Your task to perform on an android device: change the clock display to show seconds Image 0: 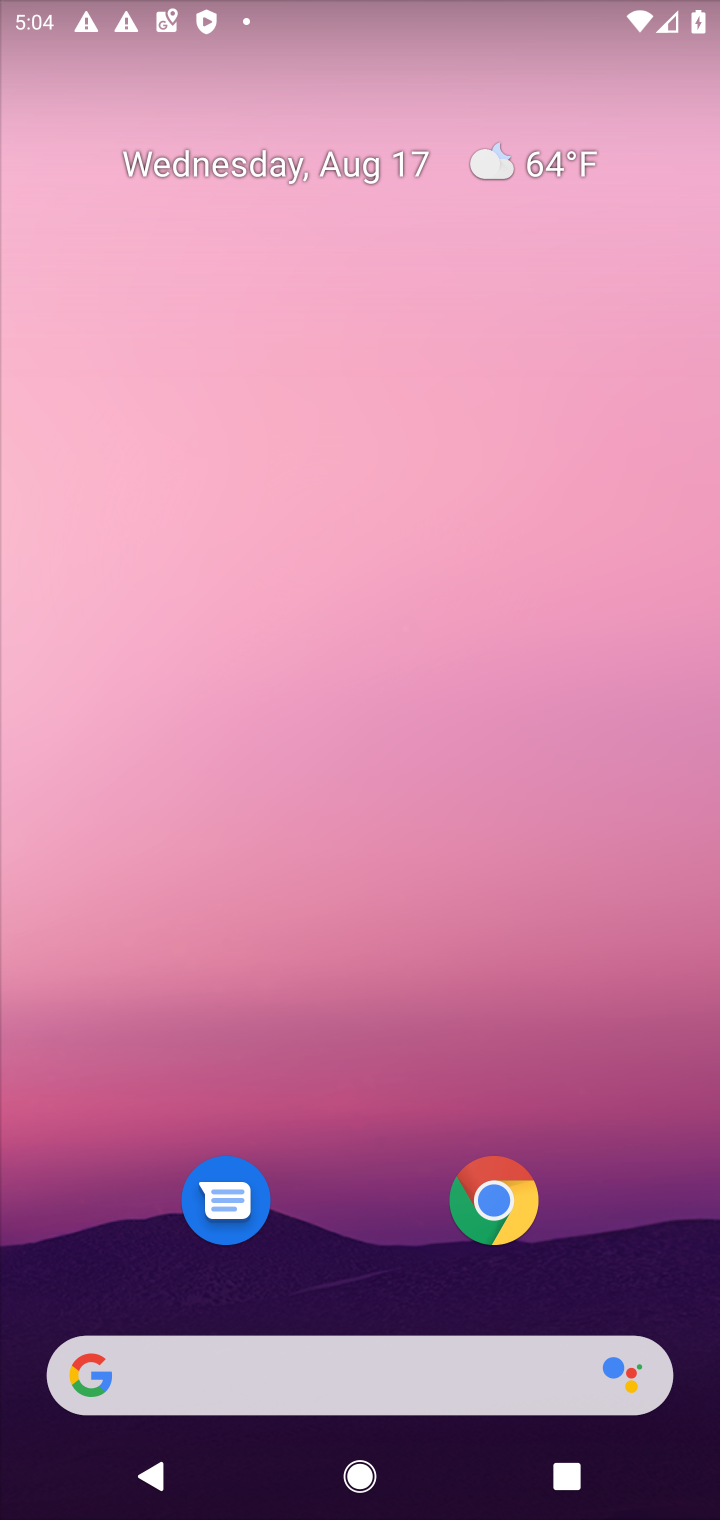
Step 0: drag from (362, 643) to (335, 118)
Your task to perform on an android device: change the clock display to show seconds Image 1: 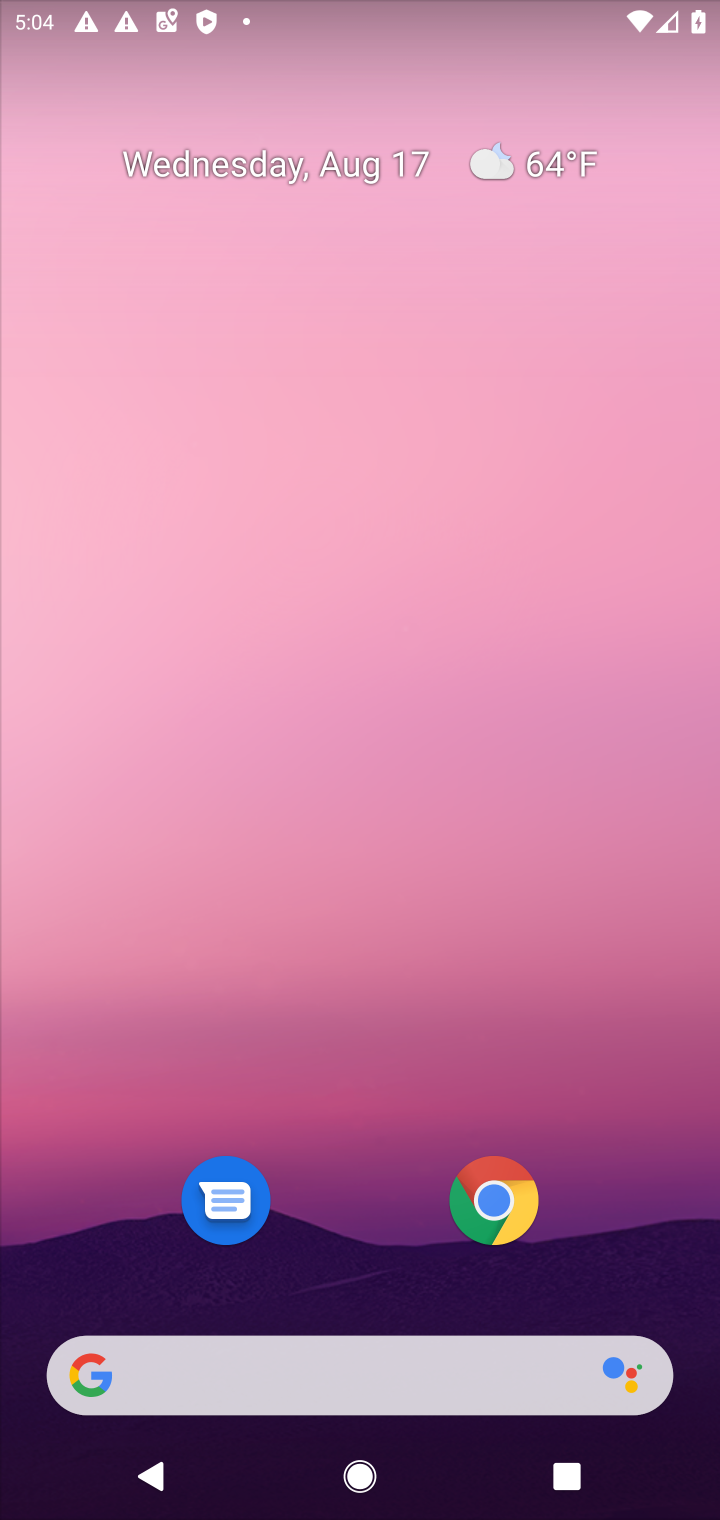
Step 1: drag from (350, 912) to (396, 12)
Your task to perform on an android device: change the clock display to show seconds Image 2: 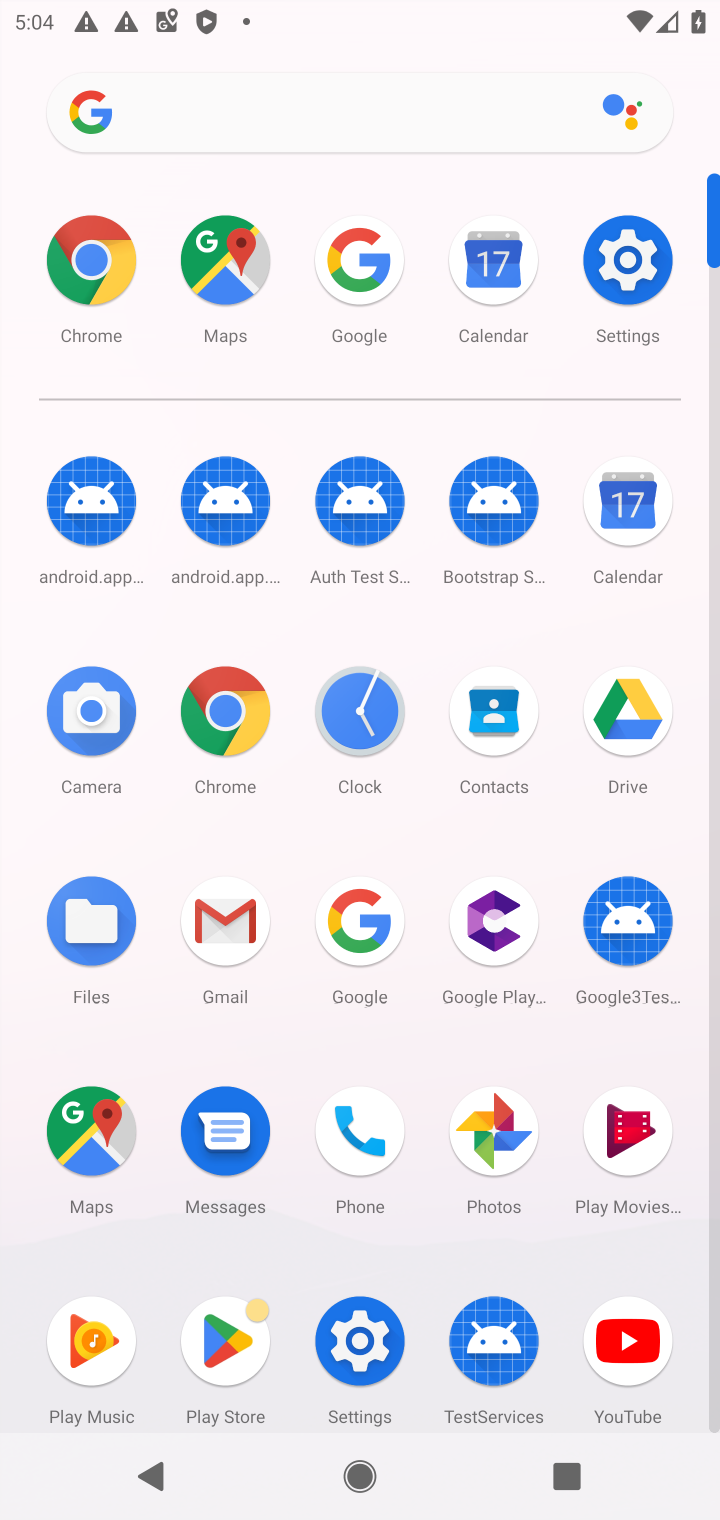
Step 2: click (366, 725)
Your task to perform on an android device: change the clock display to show seconds Image 3: 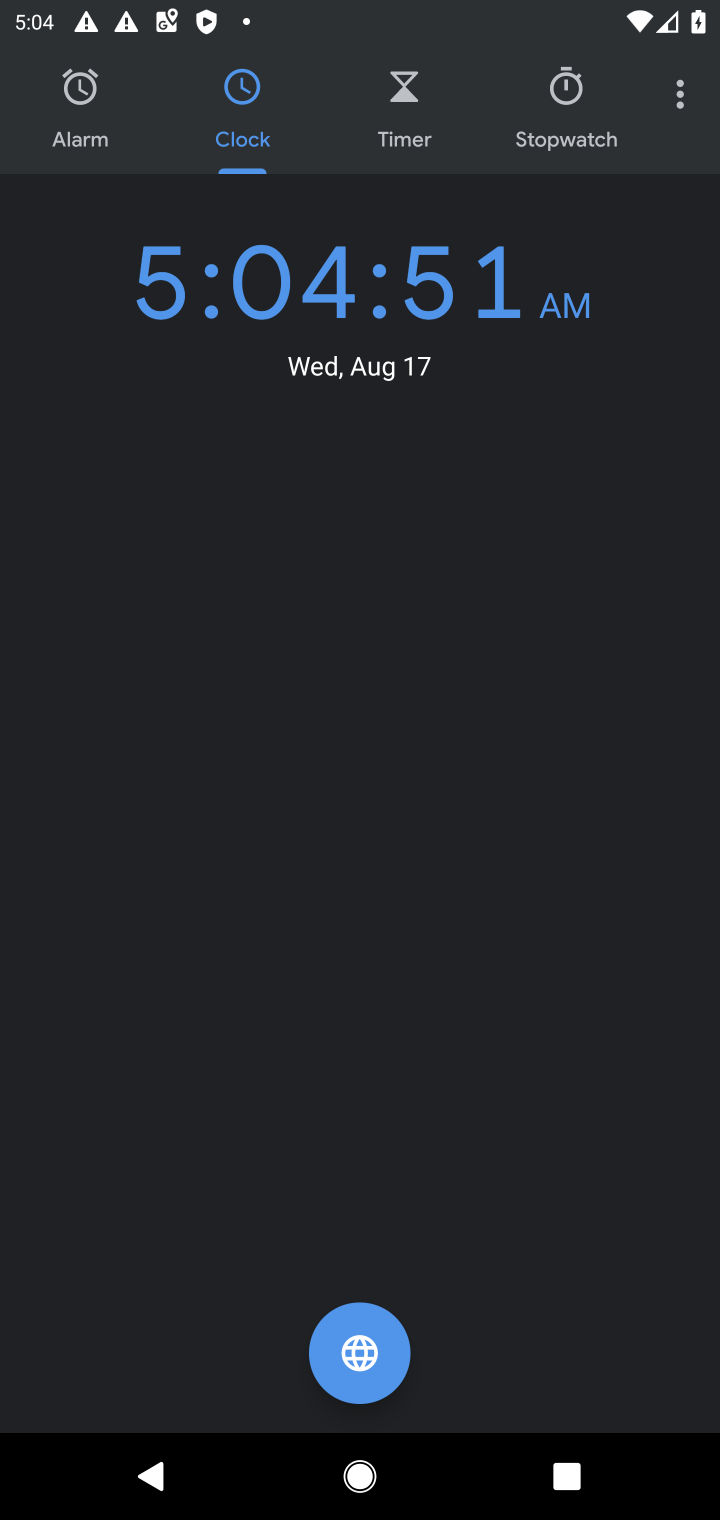
Step 3: click (685, 104)
Your task to perform on an android device: change the clock display to show seconds Image 4: 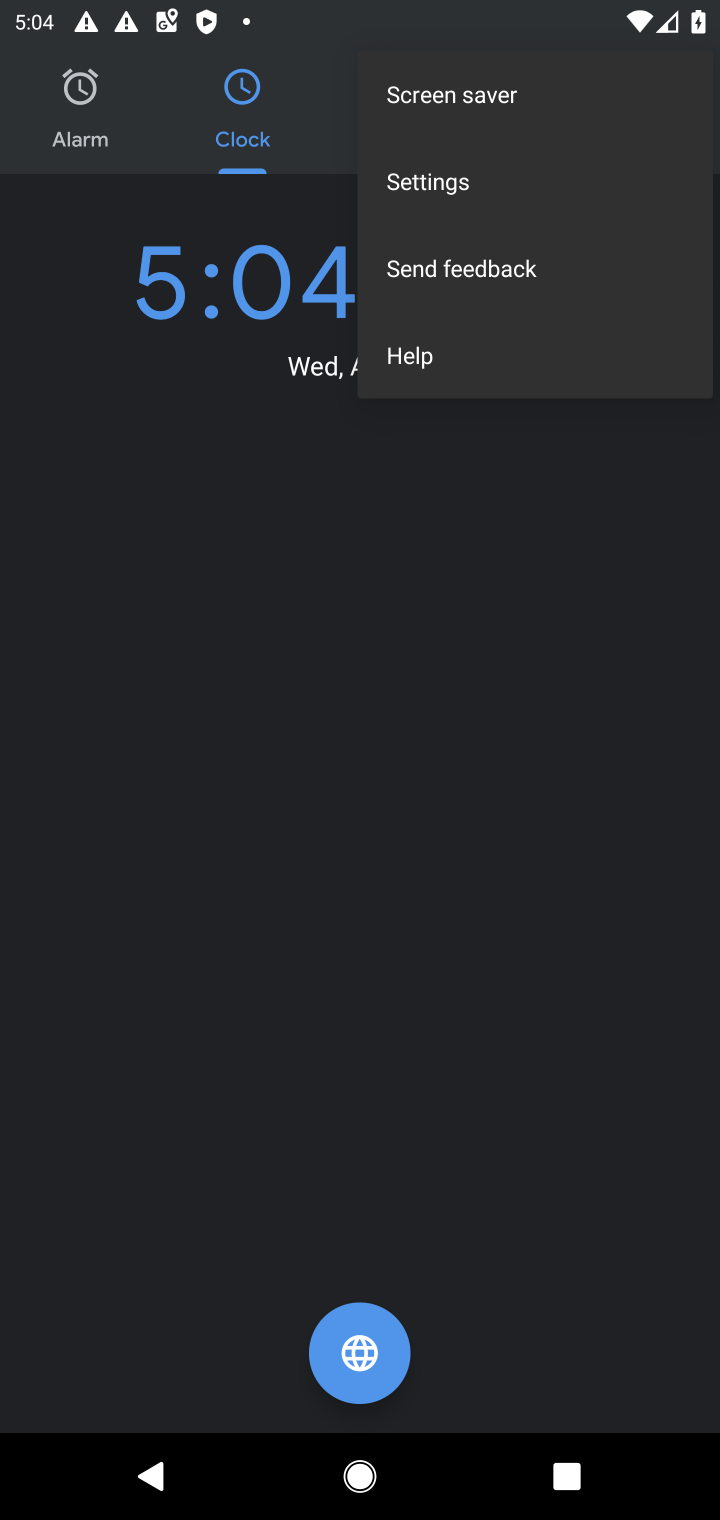
Step 4: click (428, 180)
Your task to perform on an android device: change the clock display to show seconds Image 5: 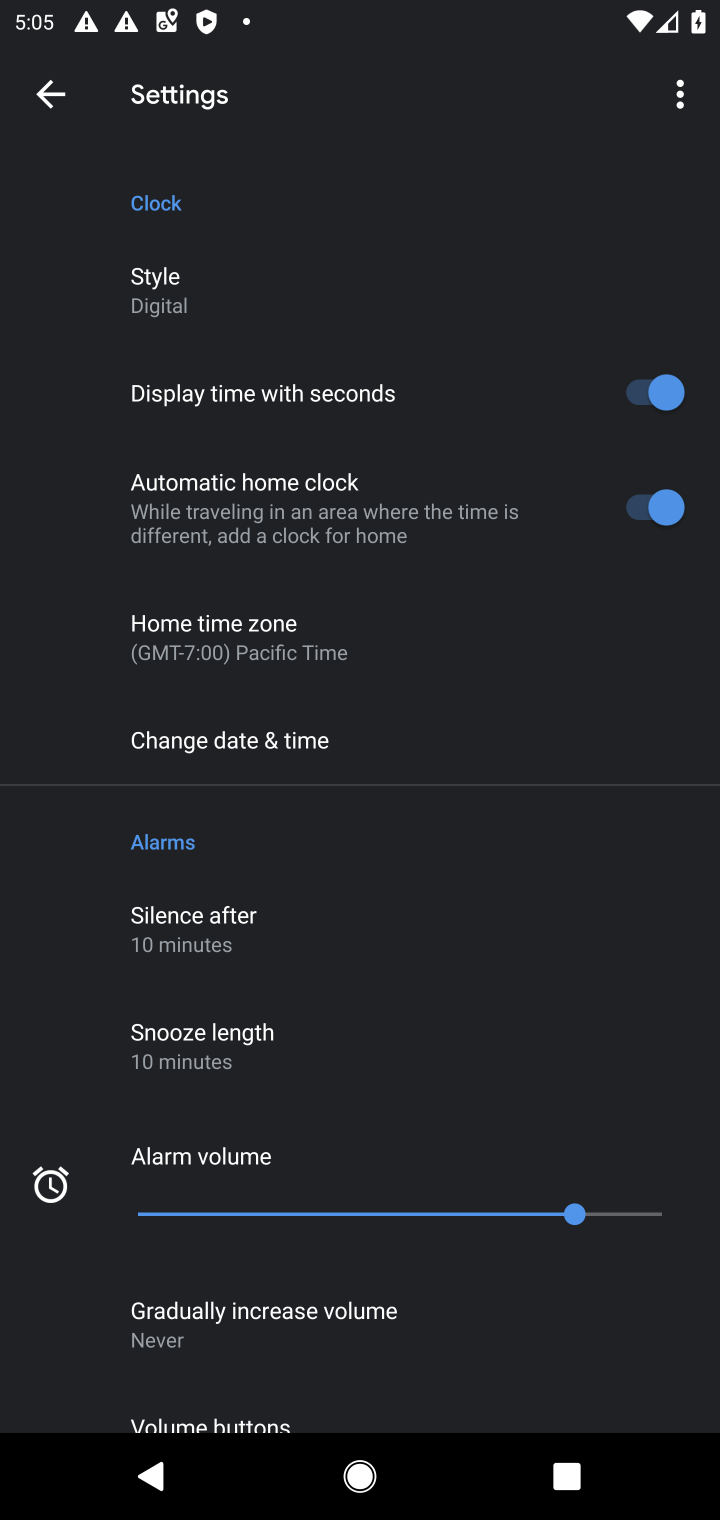
Step 5: task complete